Your task to perform on an android device: Open Wikipedia Image 0: 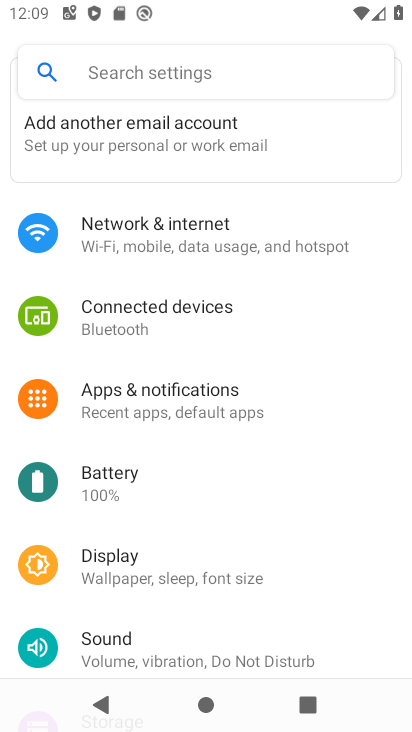
Step 0: press home button
Your task to perform on an android device: Open Wikipedia Image 1: 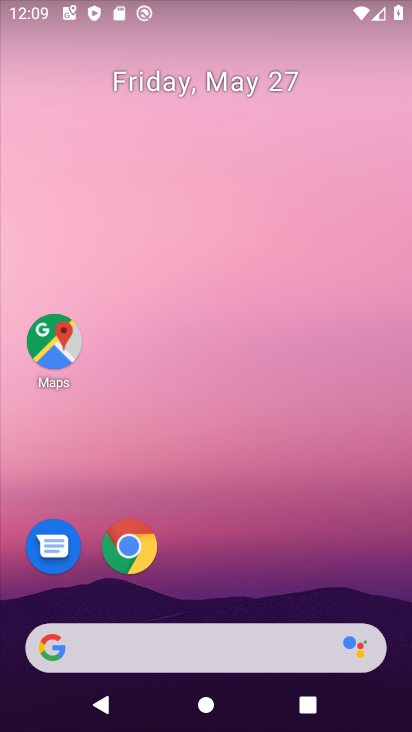
Step 1: click (134, 539)
Your task to perform on an android device: Open Wikipedia Image 2: 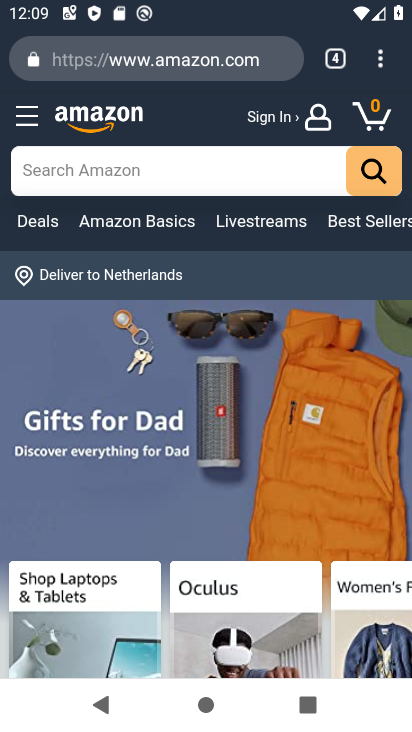
Step 2: click (374, 60)
Your task to perform on an android device: Open Wikipedia Image 3: 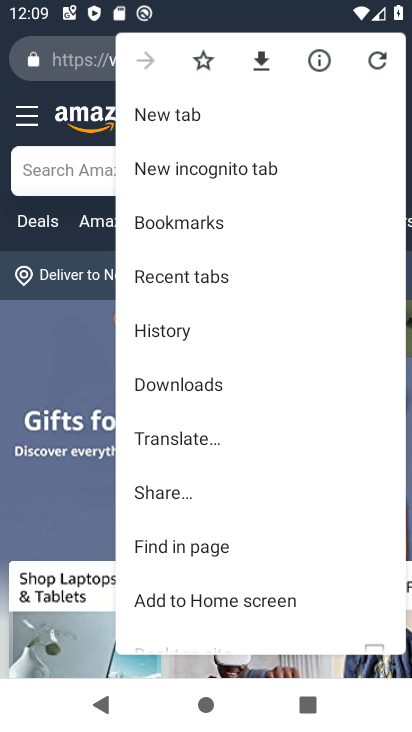
Step 3: click (170, 116)
Your task to perform on an android device: Open Wikipedia Image 4: 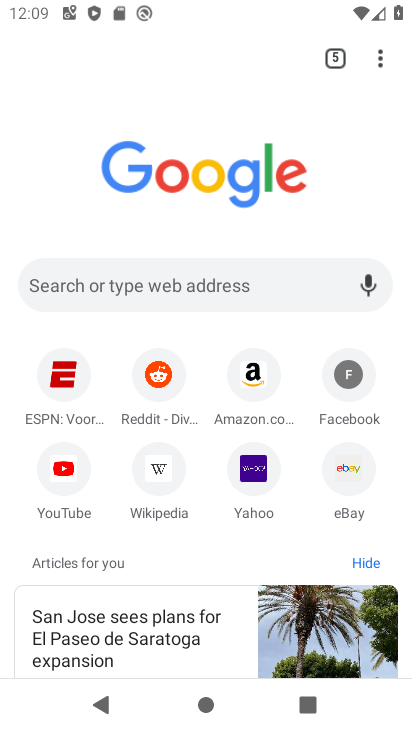
Step 4: click (151, 471)
Your task to perform on an android device: Open Wikipedia Image 5: 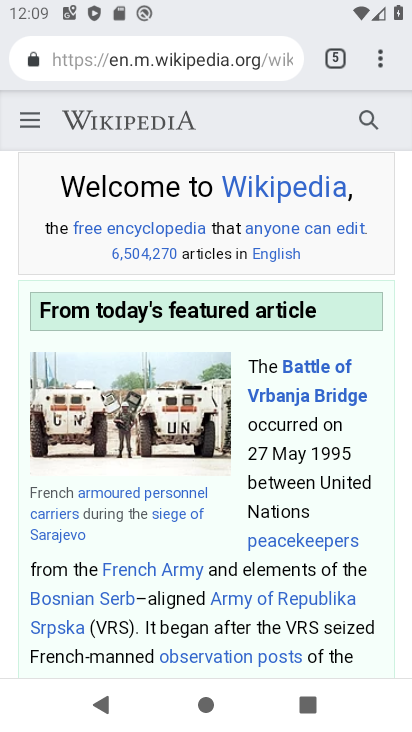
Step 5: task complete